Your task to perform on an android device: check android version Image 0: 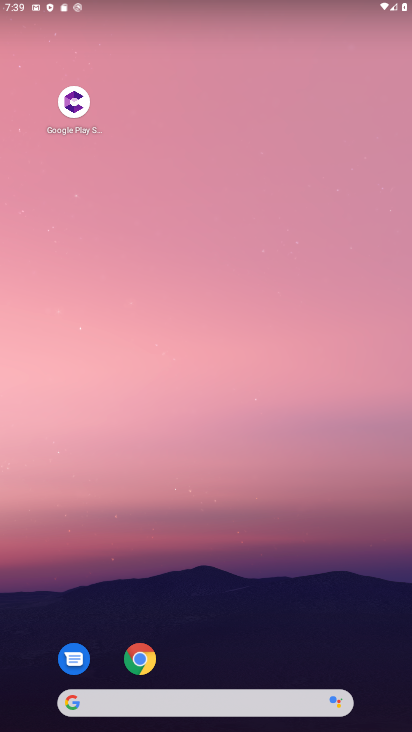
Step 0: drag from (234, 676) to (253, 3)
Your task to perform on an android device: check android version Image 1: 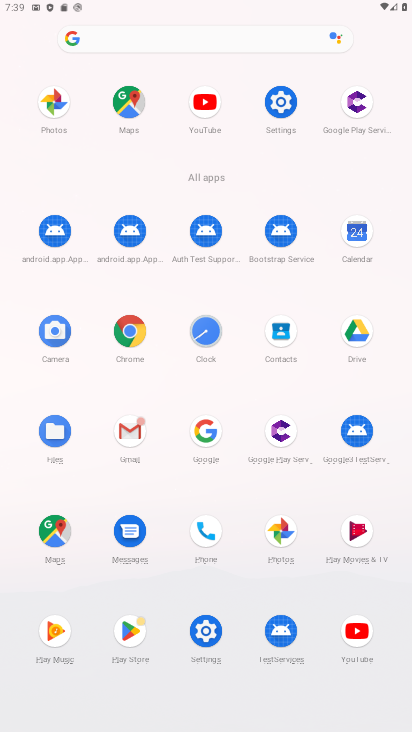
Step 1: click (276, 105)
Your task to perform on an android device: check android version Image 2: 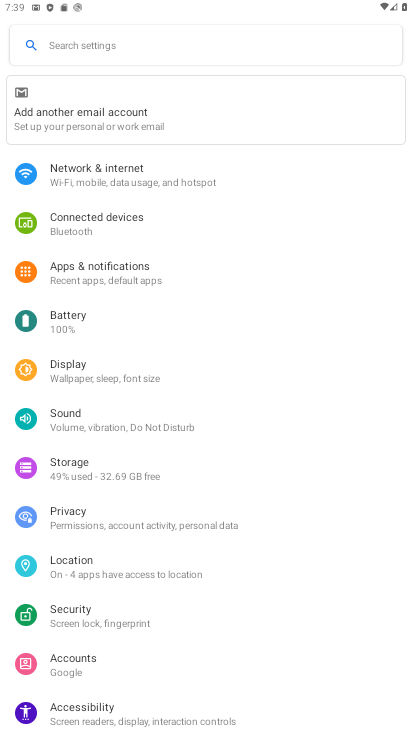
Step 2: drag from (314, 665) to (295, 180)
Your task to perform on an android device: check android version Image 3: 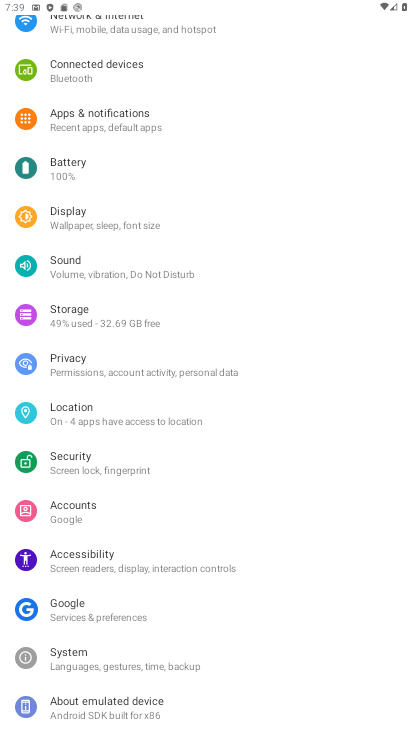
Step 3: click (131, 706)
Your task to perform on an android device: check android version Image 4: 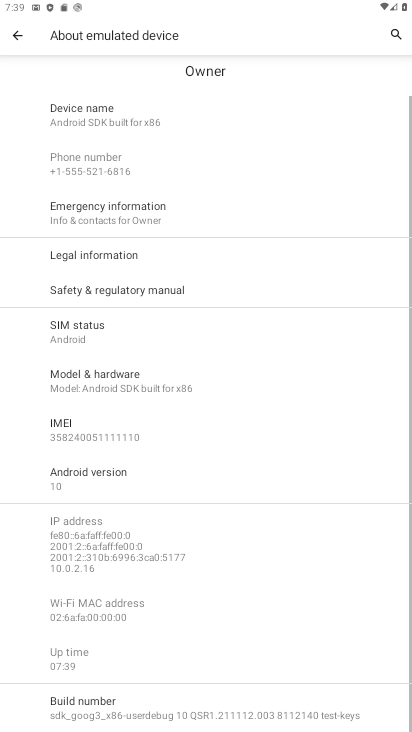
Step 4: click (76, 471)
Your task to perform on an android device: check android version Image 5: 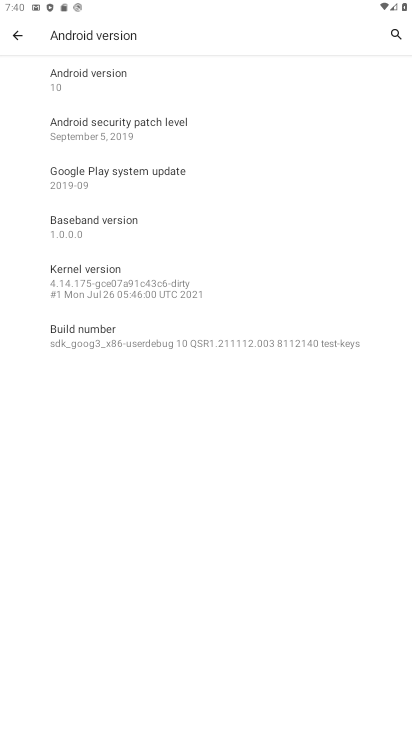
Step 5: task complete